Your task to perform on an android device: Go to Yahoo.com Image 0: 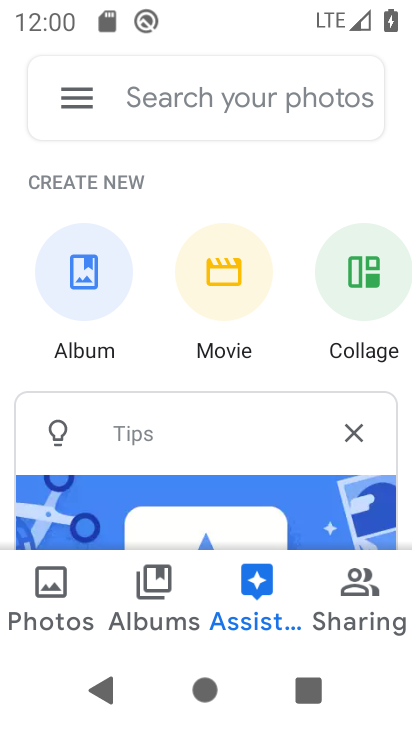
Step 0: press back button
Your task to perform on an android device: Go to Yahoo.com Image 1: 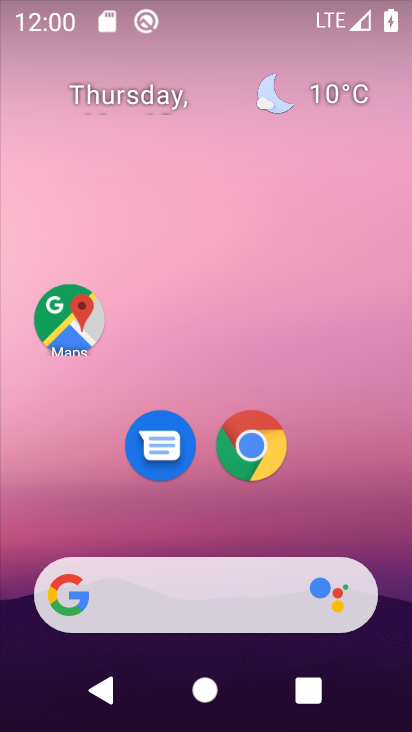
Step 1: click (247, 440)
Your task to perform on an android device: Go to Yahoo.com Image 2: 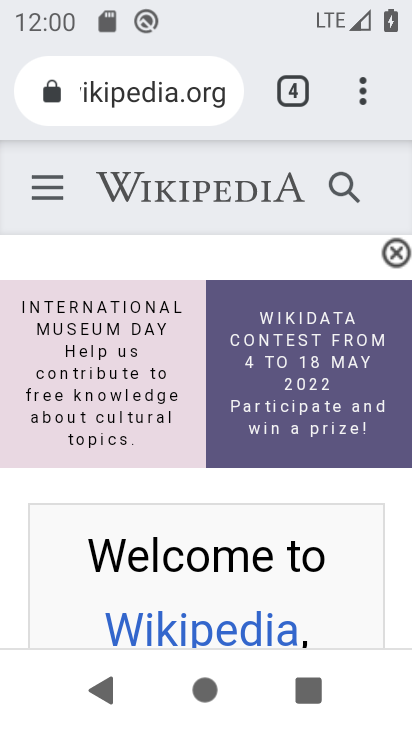
Step 2: click (281, 92)
Your task to perform on an android device: Go to Yahoo.com Image 3: 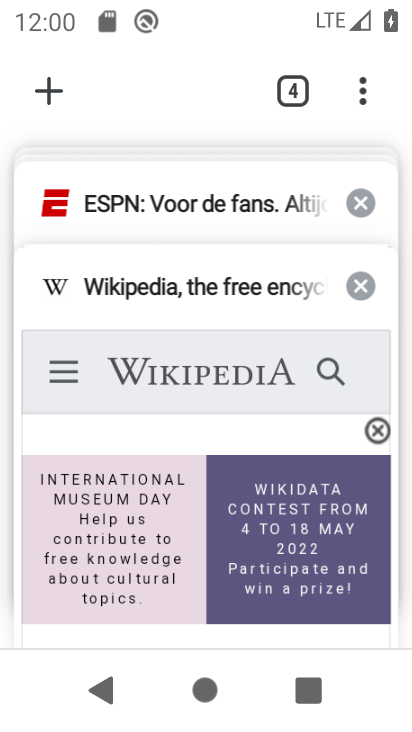
Step 3: click (48, 92)
Your task to perform on an android device: Go to Yahoo.com Image 4: 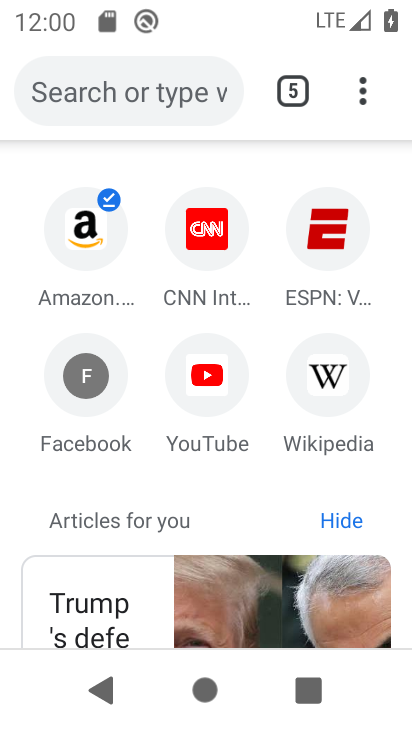
Step 4: type "yahoo.com"
Your task to perform on an android device: Go to Yahoo.com Image 5: 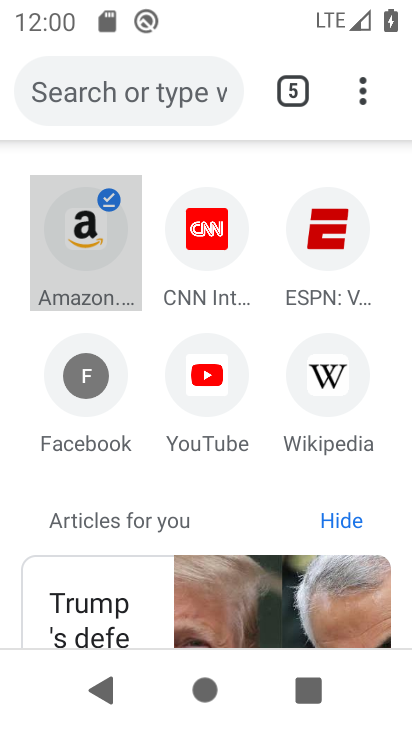
Step 5: click (96, 85)
Your task to perform on an android device: Go to Yahoo.com Image 6: 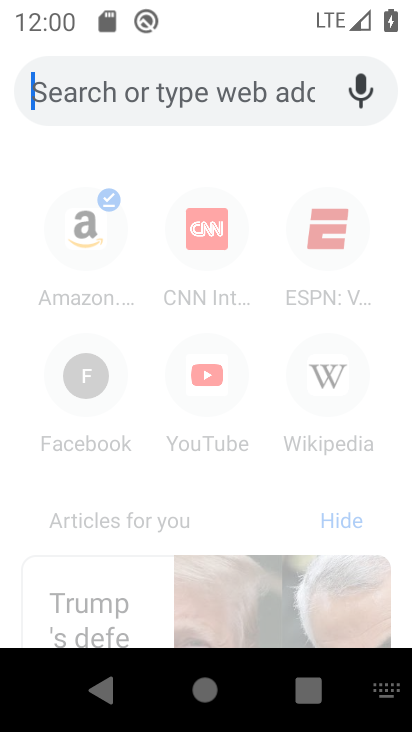
Step 6: type "yahoo.com"
Your task to perform on an android device: Go to Yahoo.com Image 7: 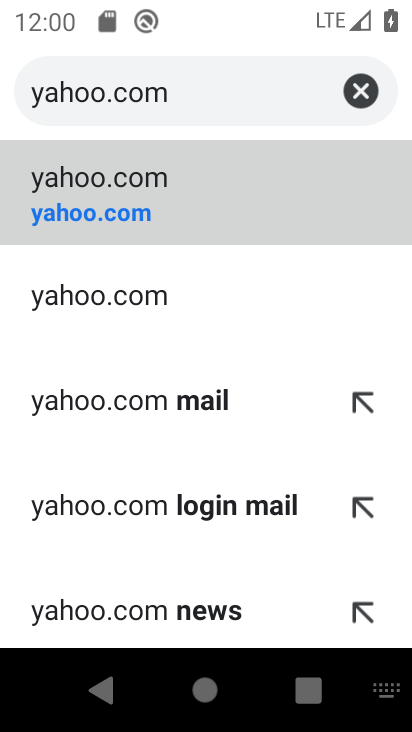
Step 7: click (103, 202)
Your task to perform on an android device: Go to Yahoo.com Image 8: 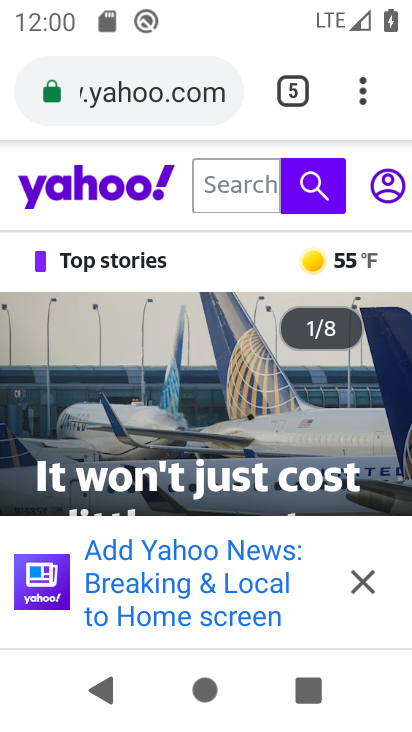
Step 8: task complete